Your task to perform on an android device: set the stopwatch Image 0: 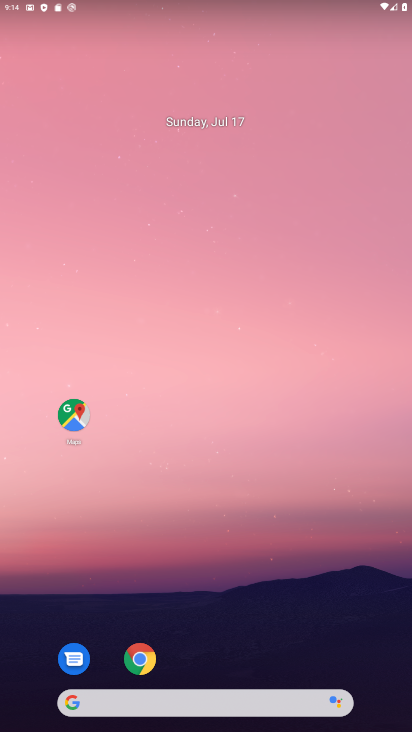
Step 0: drag from (334, 658) to (225, 147)
Your task to perform on an android device: set the stopwatch Image 1: 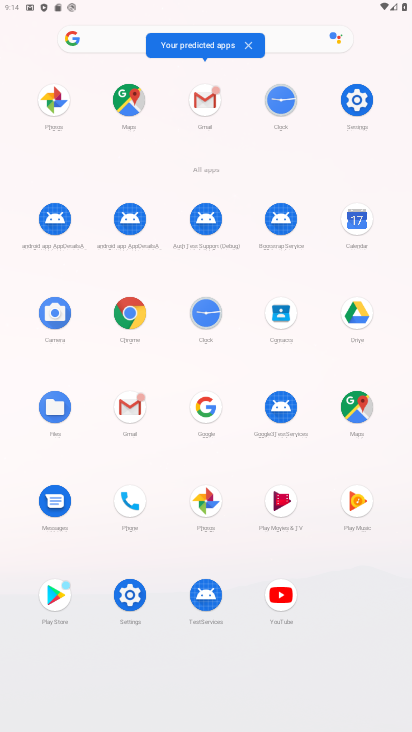
Step 1: click (273, 100)
Your task to perform on an android device: set the stopwatch Image 2: 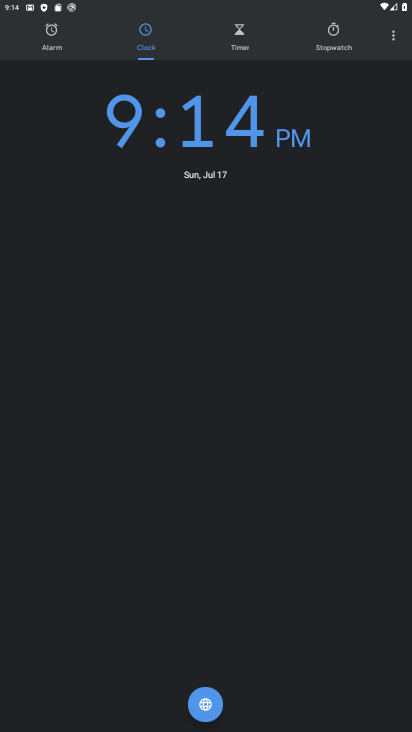
Step 2: click (325, 48)
Your task to perform on an android device: set the stopwatch Image 3: 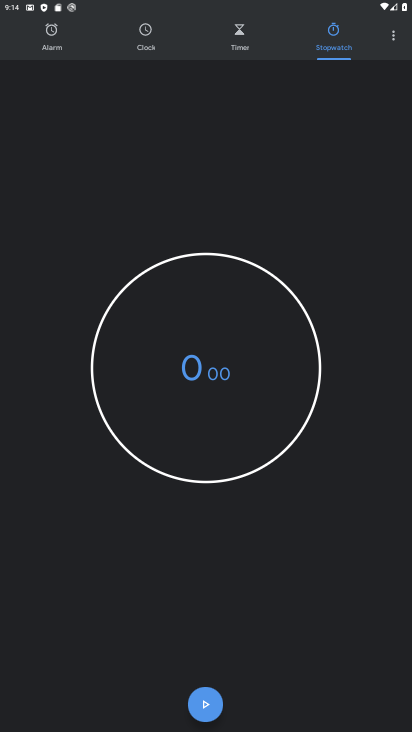
Step 3: click (204, 709)
Your task to perform on an android device: set the stopwatch Image 4: 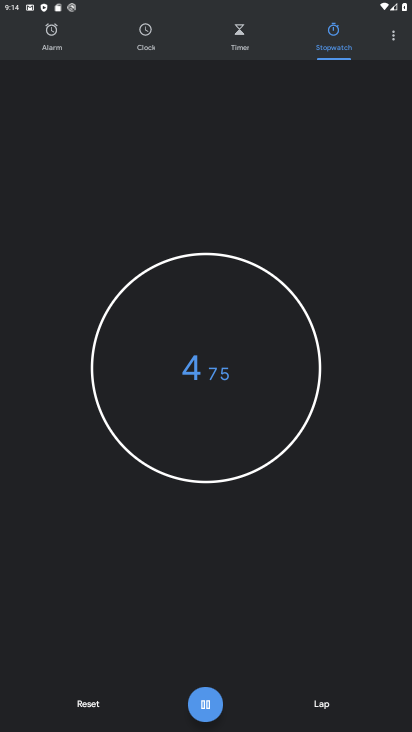
Step 4: task complete